Your task to perform on an android device: open the mobile data screen to see how much data has been used Image 0: 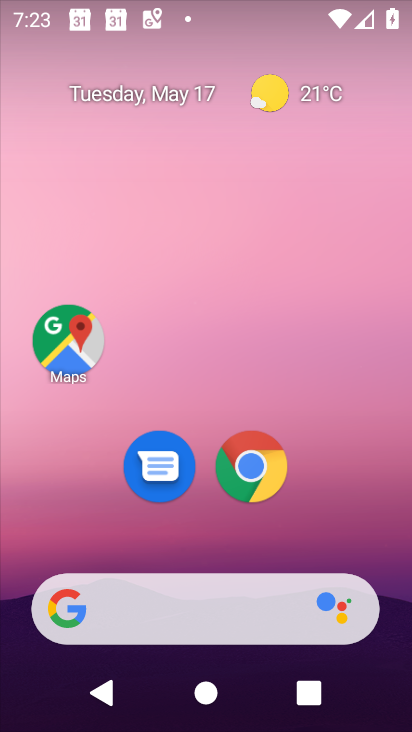
Step 0: drag from (213, 600) to (378, 110)
Your task to perform on an android device: open the mobile data screen to see how much data has been used Image 1: 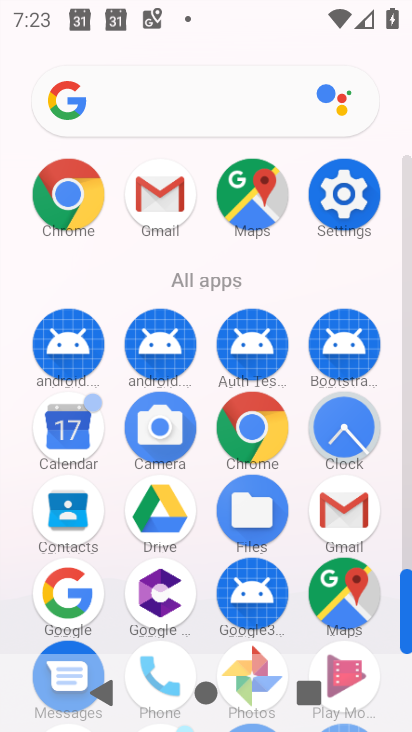
Step 1: click (341, 190)
Your task to perform on an android device: open the mobile data screen to see how much data has been used Image 2: 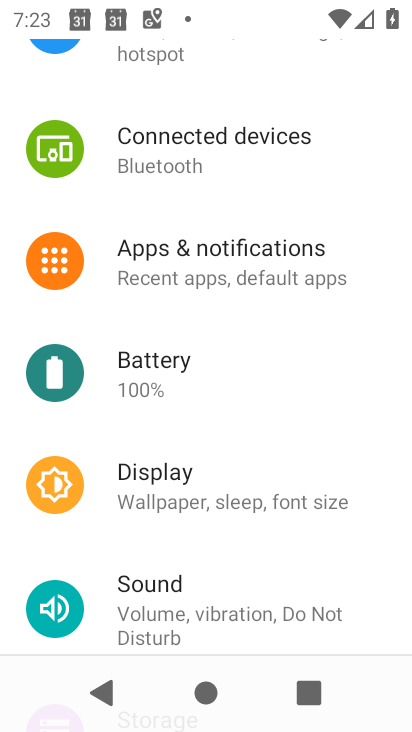
Step 2: drag from (350, 93) to (274, 469)
Your task to perform on an android device: open the mobile data screen to see how much data has been used Image 3: 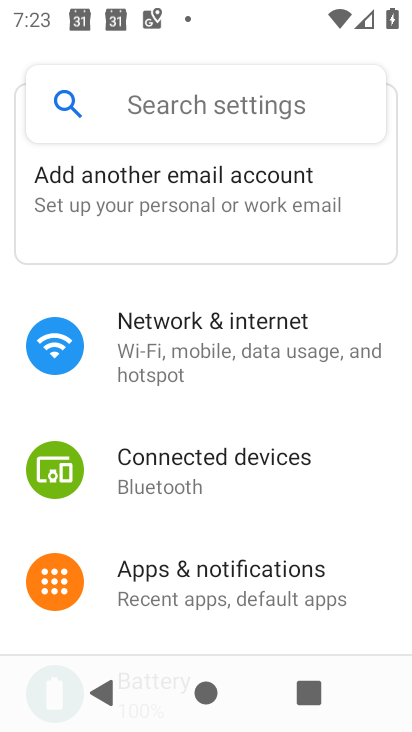
Step 3: click (251, 343)
Your task to perform on an android device: open the mobile data screen to see how much data has been used Image 4: 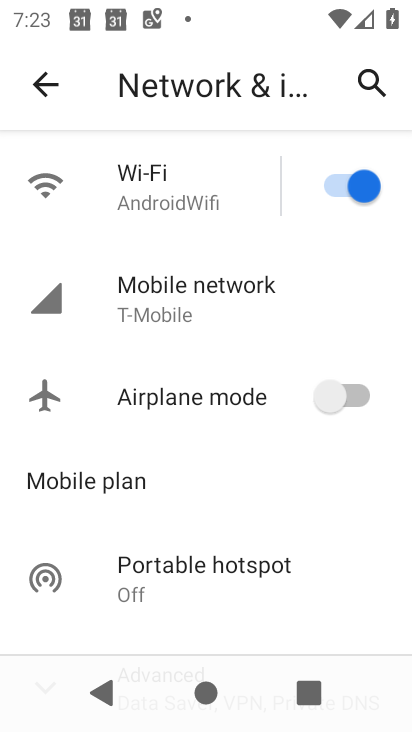
Step 4: click (199, 296)
Your task to perform on an android device: open the mobile data screen to see how much data has been used Image 5: 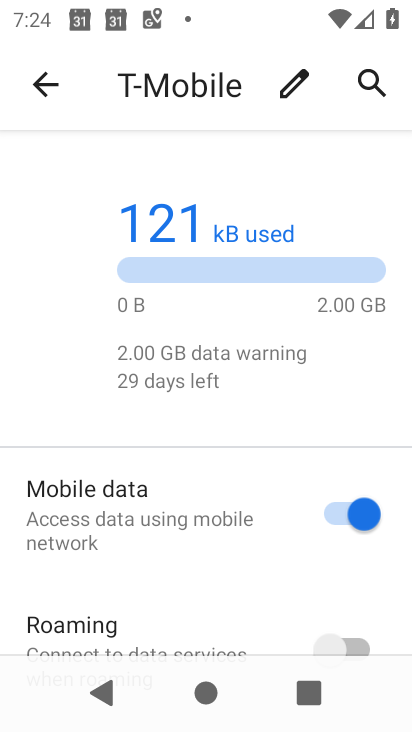
Step 5: task complete